Your task to perform on an android device: Open notification settings Image 0: 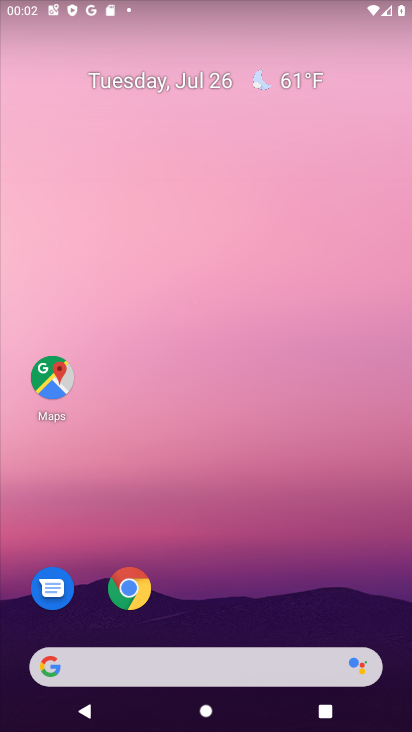
Step 0: press home button
Your task to perform on an android device: Open notification settings Image 1: 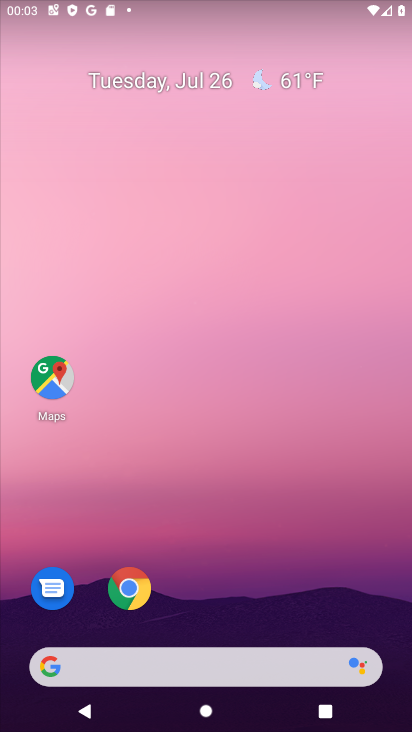
Step 1: drag from (205, 620) to (245, 121)
Your task to perform on an android device: Open notification settings Image 2: 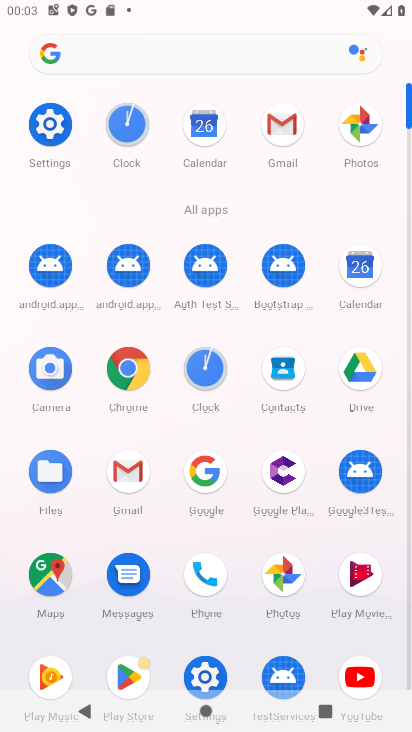
Step 2: click (48, 112)
Your task to perform on an android device: Open notification settings Image 3: 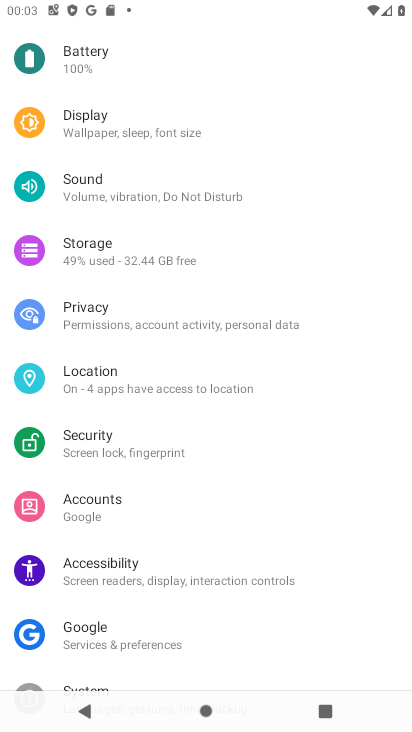
Step 3: drag from (173, 146) to (180, 600)
Your task to perform on an android device: Open notification settings Image 4: 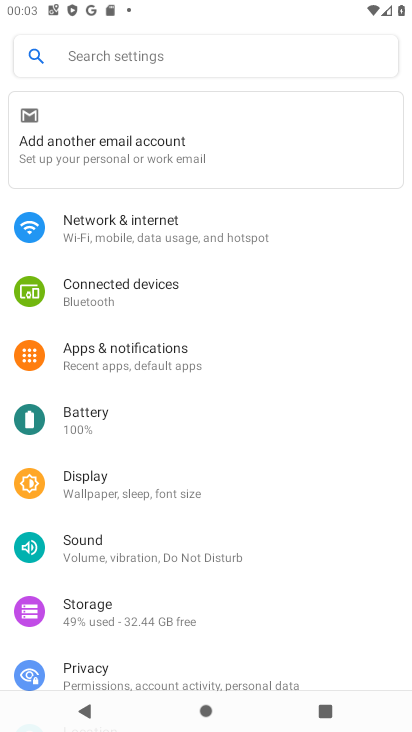
Step 4: click (205, 348)
Your task to perform on an android device: Open notification settings Image 5: 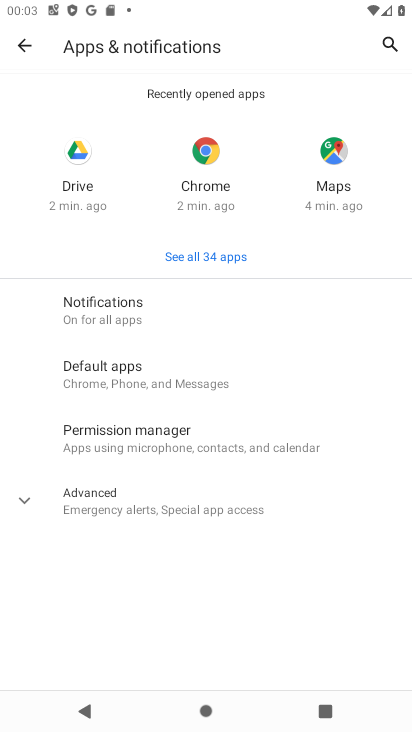
Step 5: click (158, 304)
Your task to perform on an android device: Open notification settings Image 6: 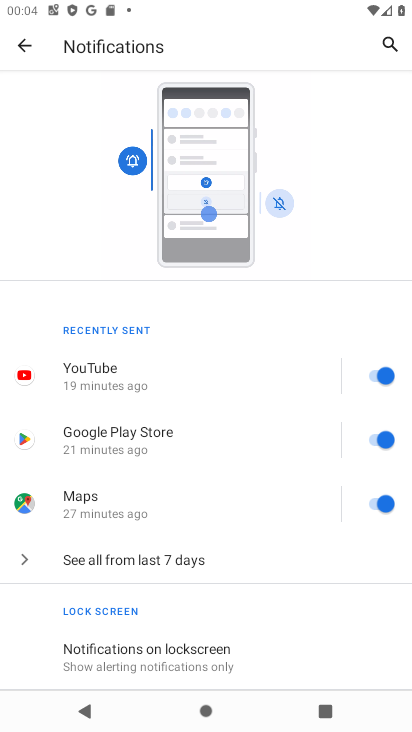
Step 6: drag from (254, 628) to (238, 130)
Your task to perform on an android device: Open notification settings Image 7: 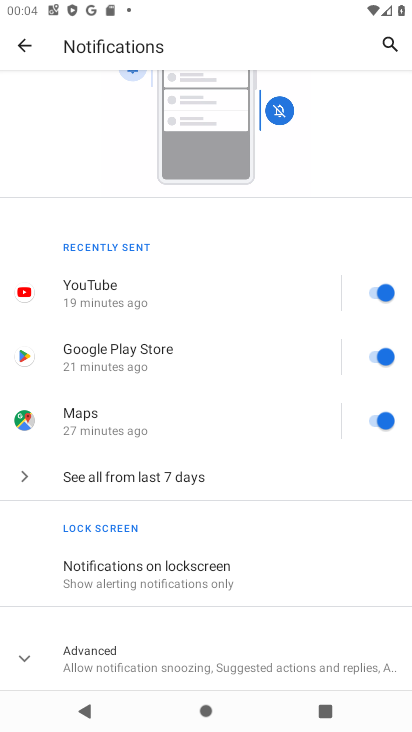
Step 7: click (24, 656)
Your task to perform on an android device: Open notification settings Image 8: 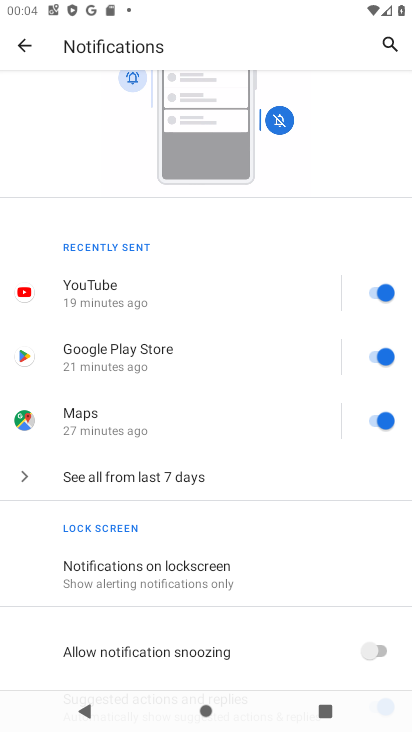
Step 8: task complete